Your task to perform on an android device: Clear the cart on amazon.com. Add macbook pro 13 inch to the cart on amazon.com Image 0: 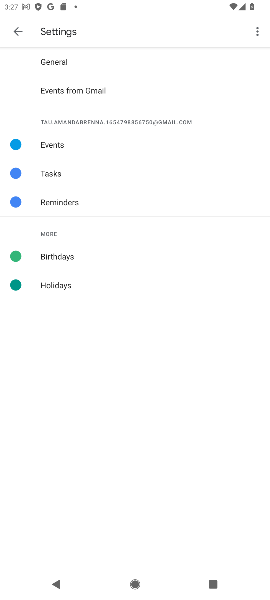
Step 0: press home button
Your task to perform on an android device: Clear the cart on amazon.com. Add macbook pro 13 inch to the cart on amazon.com Image 1: 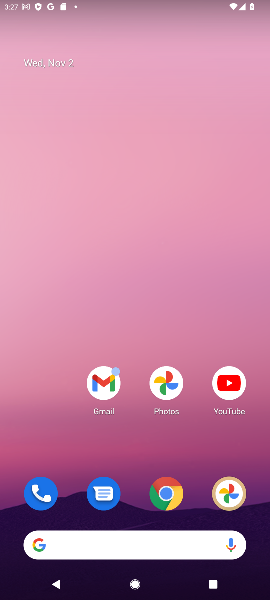
Step 1: drag from (89, 510) to (171, 215)
Your task to perform on an android device: Clear the cart on amazon.com. Add macbook pro 13 inch to the cart on amazon.com Image 2: 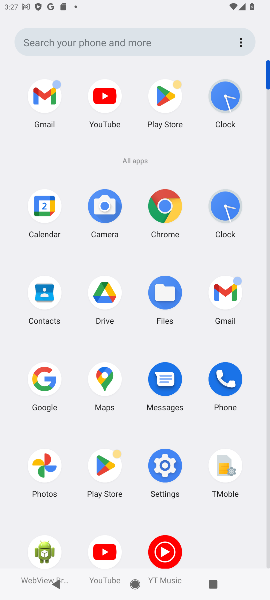
Step 2: click (53, 379)
Your task to perform on an android device: Clear the cart on amazon.com. Add macbook pro 13 inch to the cart on amazon.com Image 3: 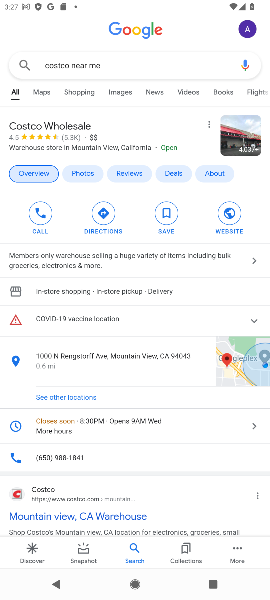
Step 3: click (113, 56)
Your task to perform on an android device: Clear the cart on amazon.com. Add macbook pro 13 inch to the cart on amazon.com Image 4: 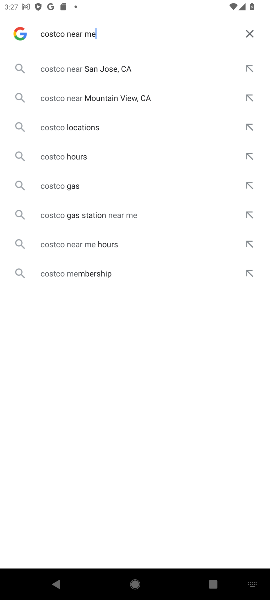
Step 4: click (81, 72)
Your task to perform on an android device: Clear the cart on amazon.com. Add macbook pro 13 inch to the cart on amazon.com Image 5: 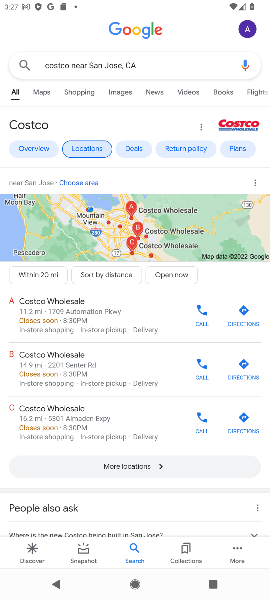
Step 5: drag from (108, 505) to (123, 214)
Your task to perform on an android device: Clear the cart on amazon.com. Add macbook pro 13 inch to the cart on amazon.com Image 6: 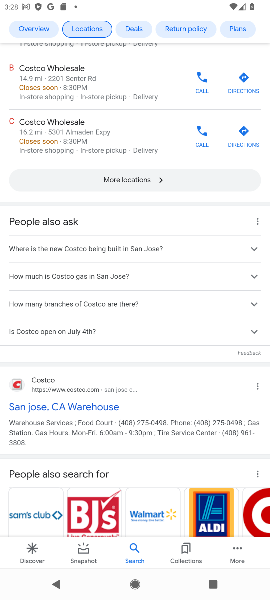
Step 6: click (16, 383)
Your task to perform on an android device: Clear the cart on amazon.com. Add macbook pro 13 inch to the cart on amazon.com Image 7: 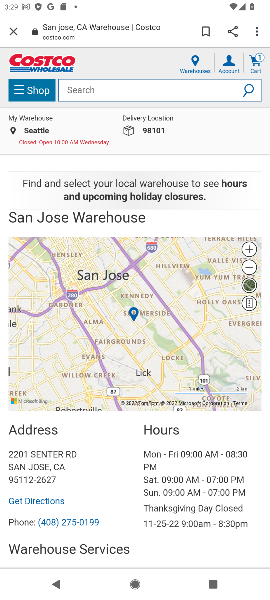
Step 7: click (164, 87)
Your task to perform on an android device: Clear the cart on amazon.com. Add macbook pro 13 inch to the cart on amazon.com Image 8: 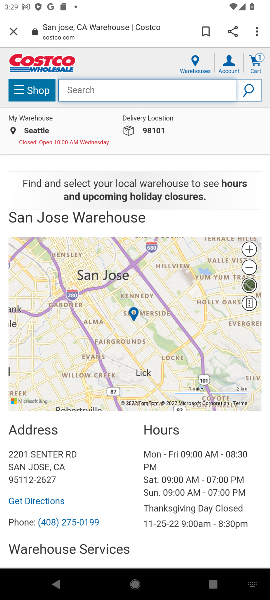
Step 8: type "macbook pro 13 inch  "
Your task to perform on an android device: Clear the cart on amazon.com. Add macbook pro 13 inch to the cart on amazon.com Image 9: 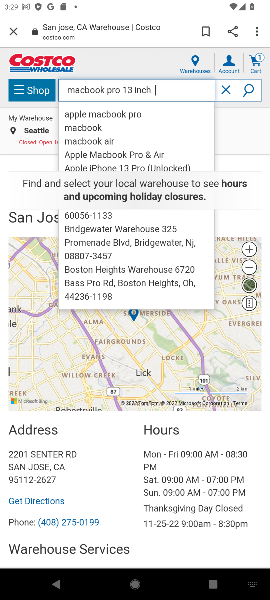
Step 9: click (103, 114)
Your task to perform on an android device: Clear the cart on amazon.com. Add macbook pro 13 inch to the cart on amazon.com Image 10: 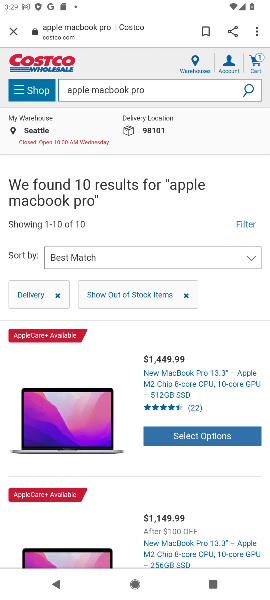
Step 10: click (172, 369)
Your task to perform on an android device: Clear the cart on amazon.com. Add macbook pro 13 inch to the cart on amazon.com Image 11: 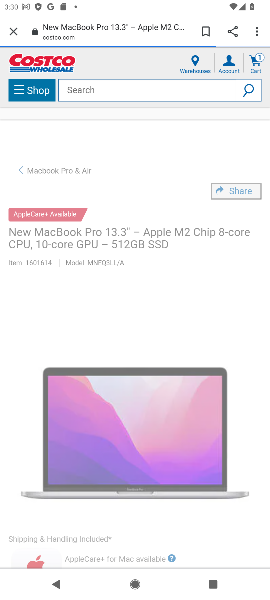
Step 11: drag from (121, 491) to (169, 212)
Your task to perform on an android device: Clear the cart on amazon.com. Add macbook pro 13 inch to the cart on amazon.com Image 12: 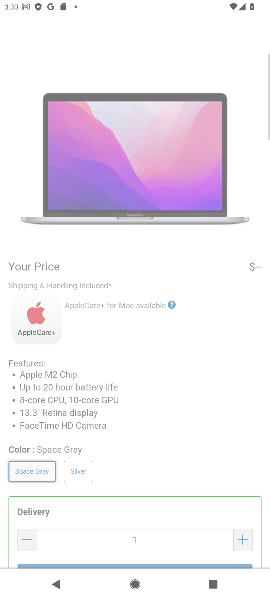
Step 12: drag from (128, 487) to (145, 231)
Your task to perform on an android device: Clear the cart on amazon.com. Add macbook pro 13 inch to the cart on amazon.com Image 13: 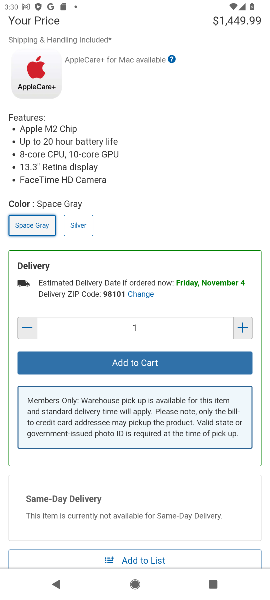
Step 13: click (152, 366)
Your task to perform on an android device: Clear the cart on amazon.com. Add macbook pro 13 inch to the cart on amazon.com Image 14: 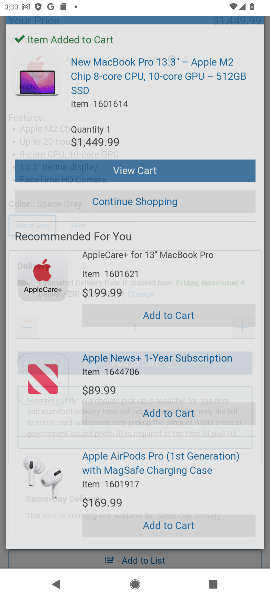
Step 14: task complete